Your task to perform on an android device: Clear the shopping cart on newegg.com. Add "amazon basics triple a" to the cart on newegg.com Image 0: 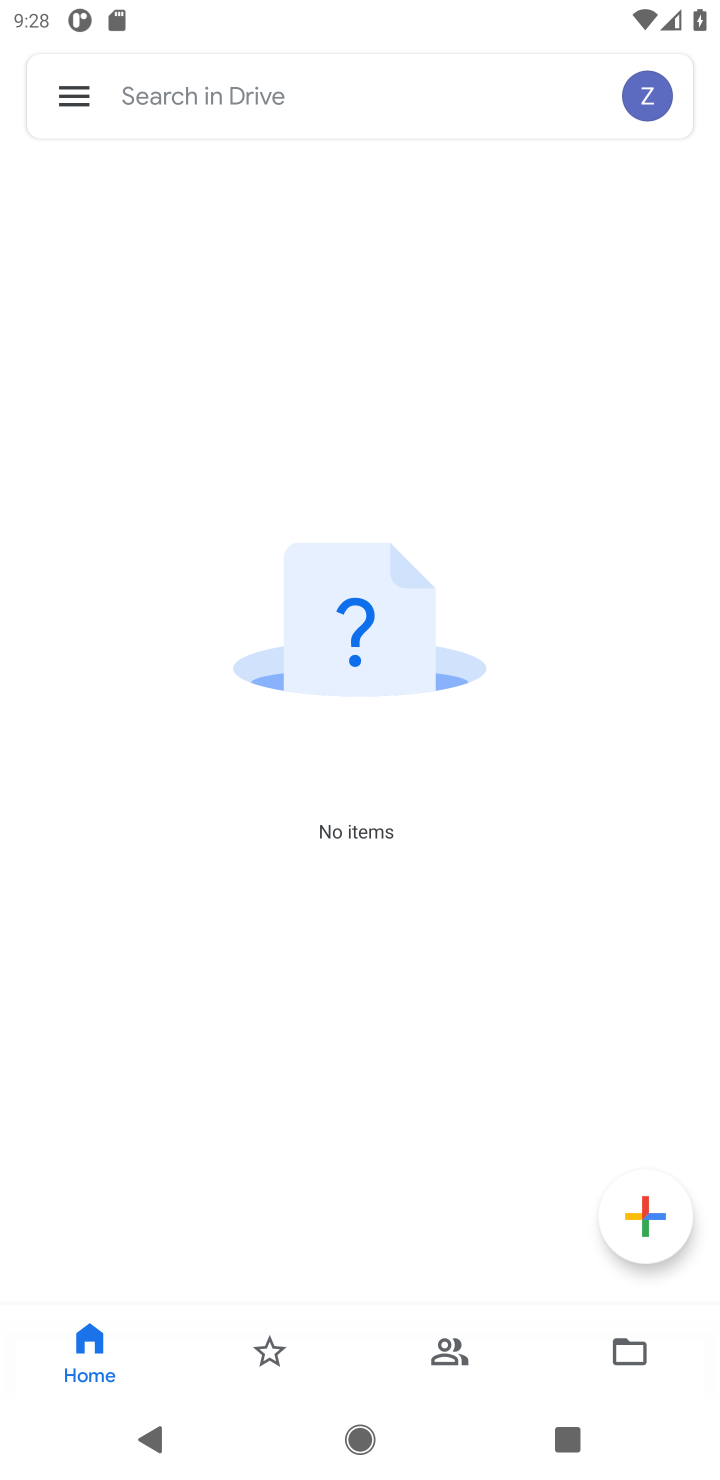
Step 0: press home button
Your task to perform on an android device: Clear the shopping cart on newegg.com. Add "amazon basics triple a" to the cart on newegg.com Image 1: 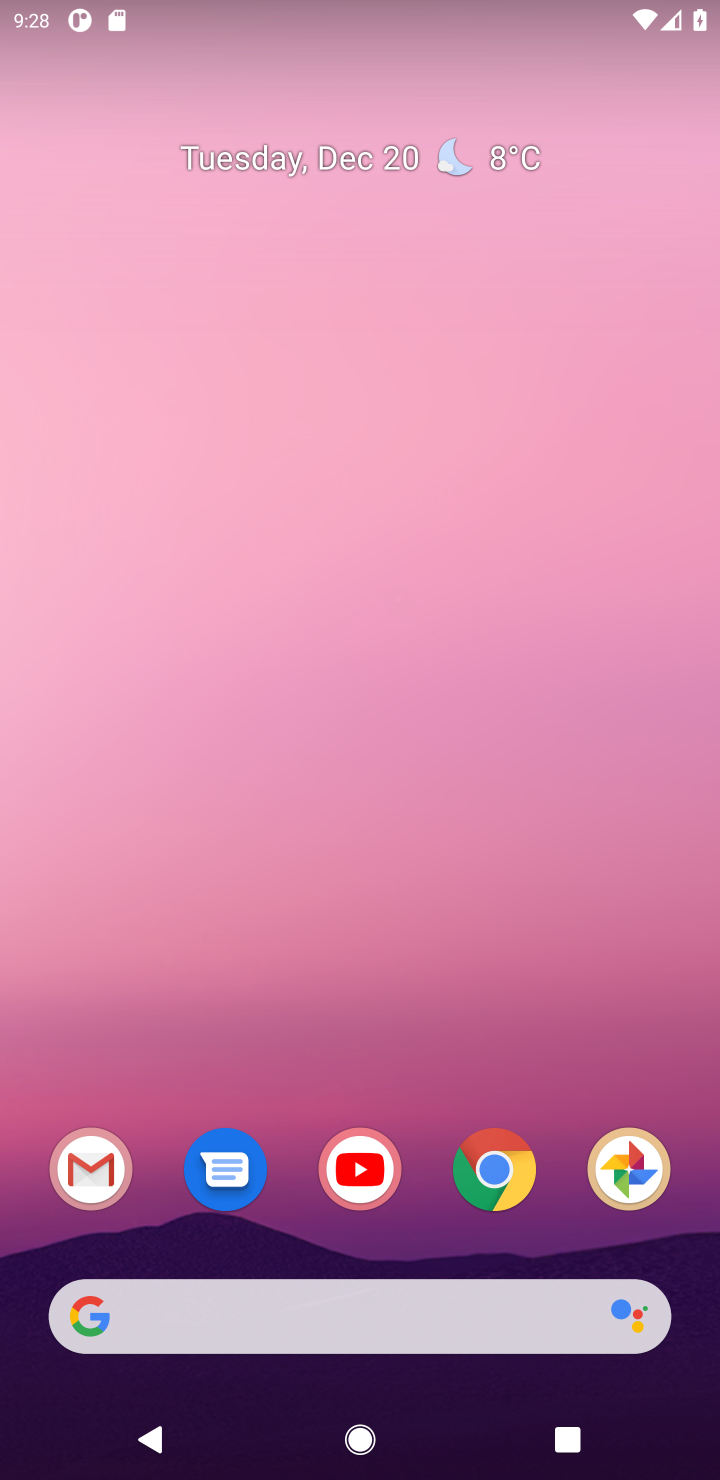
Step 1: click (500, 1184)
Your task to perform on an android device: Clear the shopping cart on newegg.com. Add "amazon basics triple a" to the cart on newegg.com Image 2: 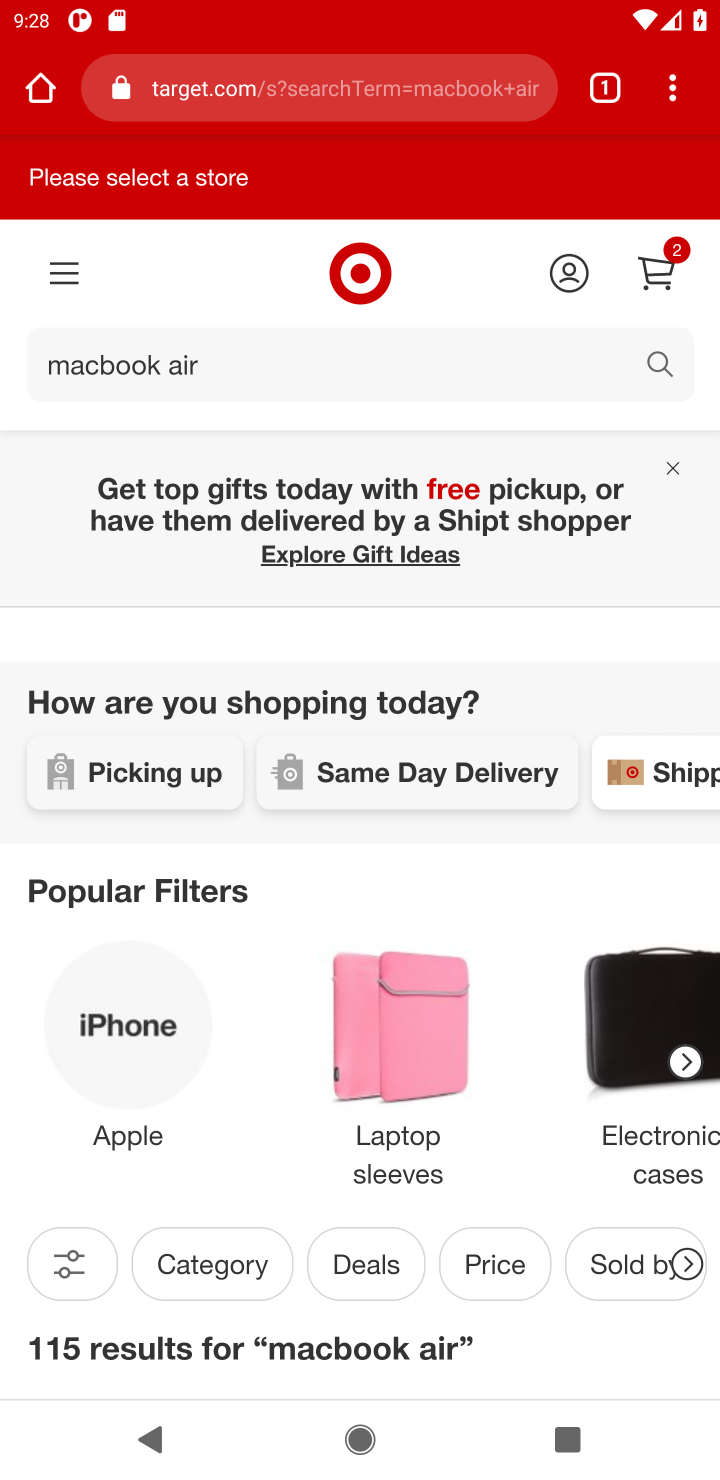
Step 2: click (343, 98)
Your task to perform on an android device: Clear the shopping cart on newegg.com. Add "amazon basics triple a" to the cart on newegg.com Image 3: 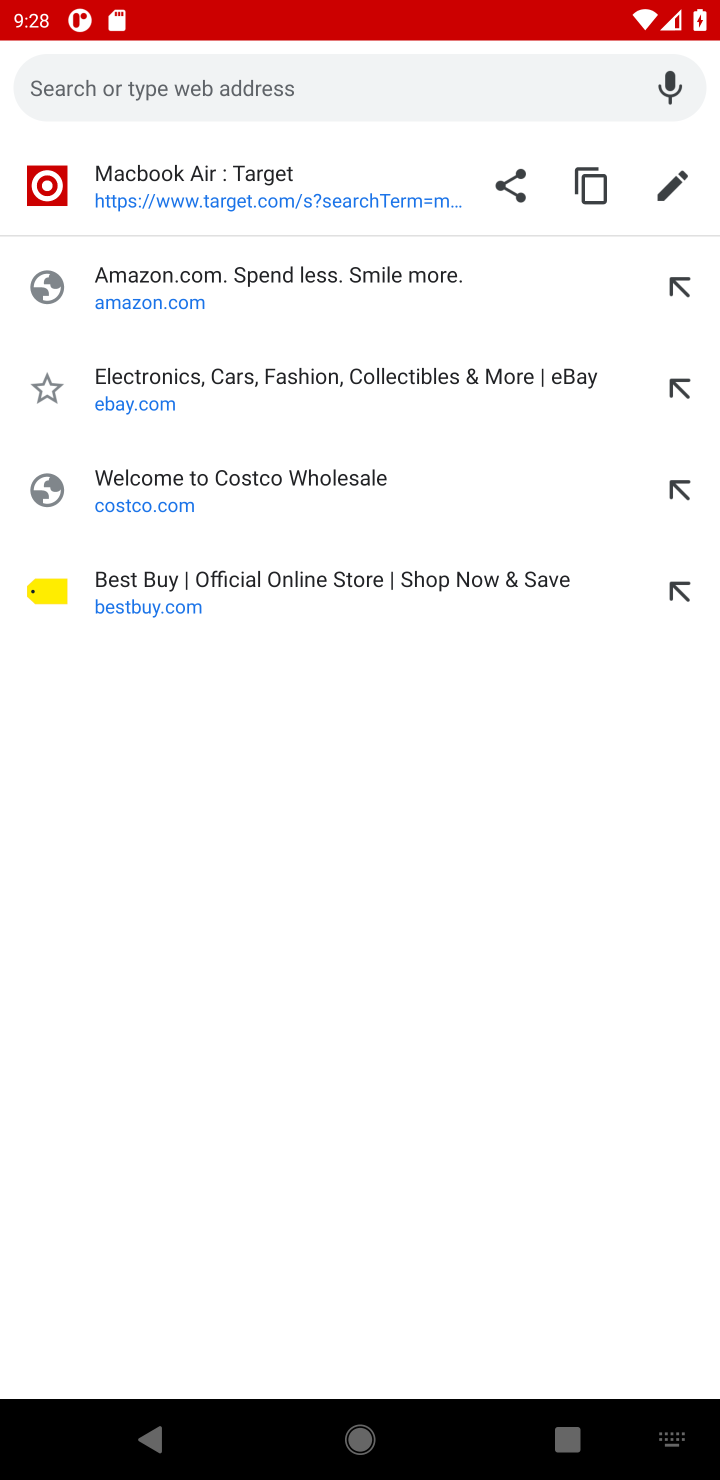
Step 3: type "newegg"
Your task to perform on an android device: Clear the shopping cart on newegg.com. Add "amazon basics triple a" to the cart on newegg.com Image 4: 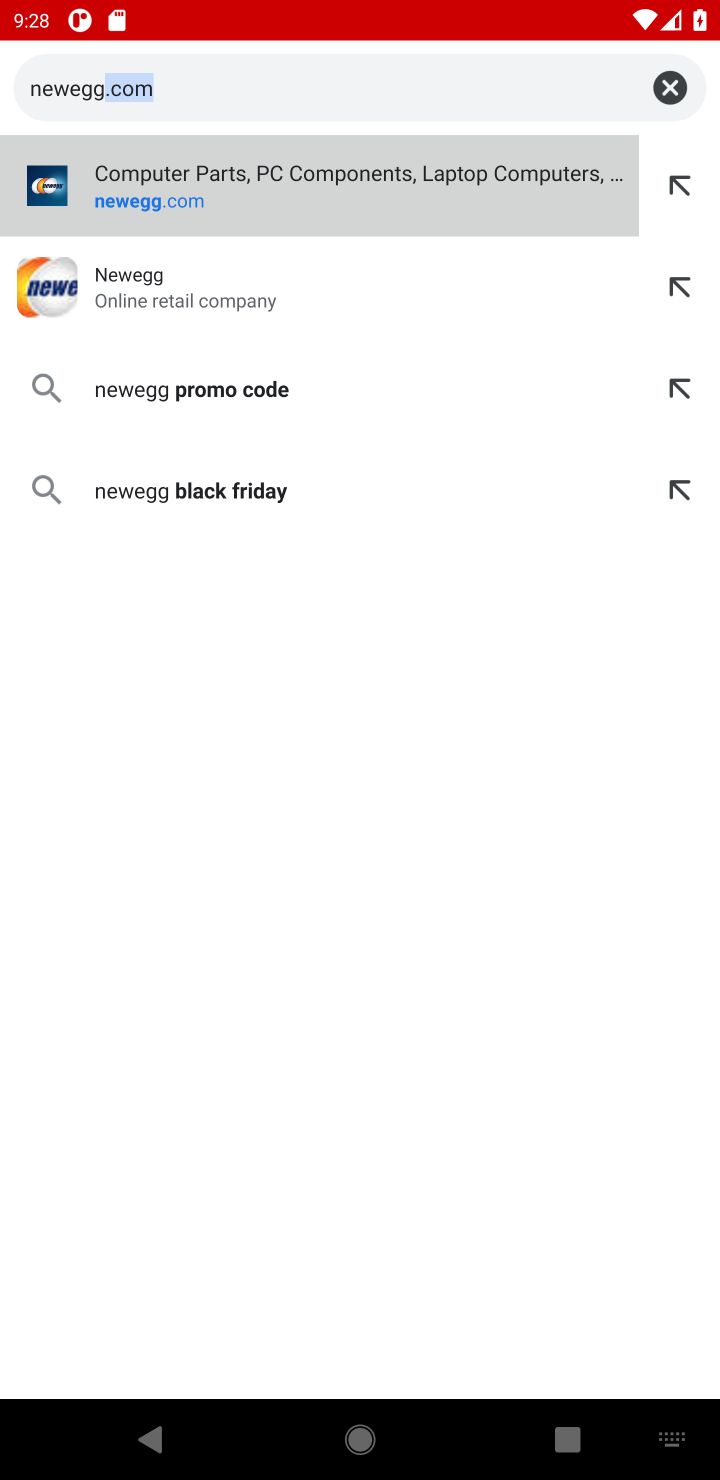
Step 4: click (280, 185)
Your task to perform on an android device: Clear the shopping cart on newegg.com. Add "amazon basics triple a" to the cart on newegg.com Image 5: 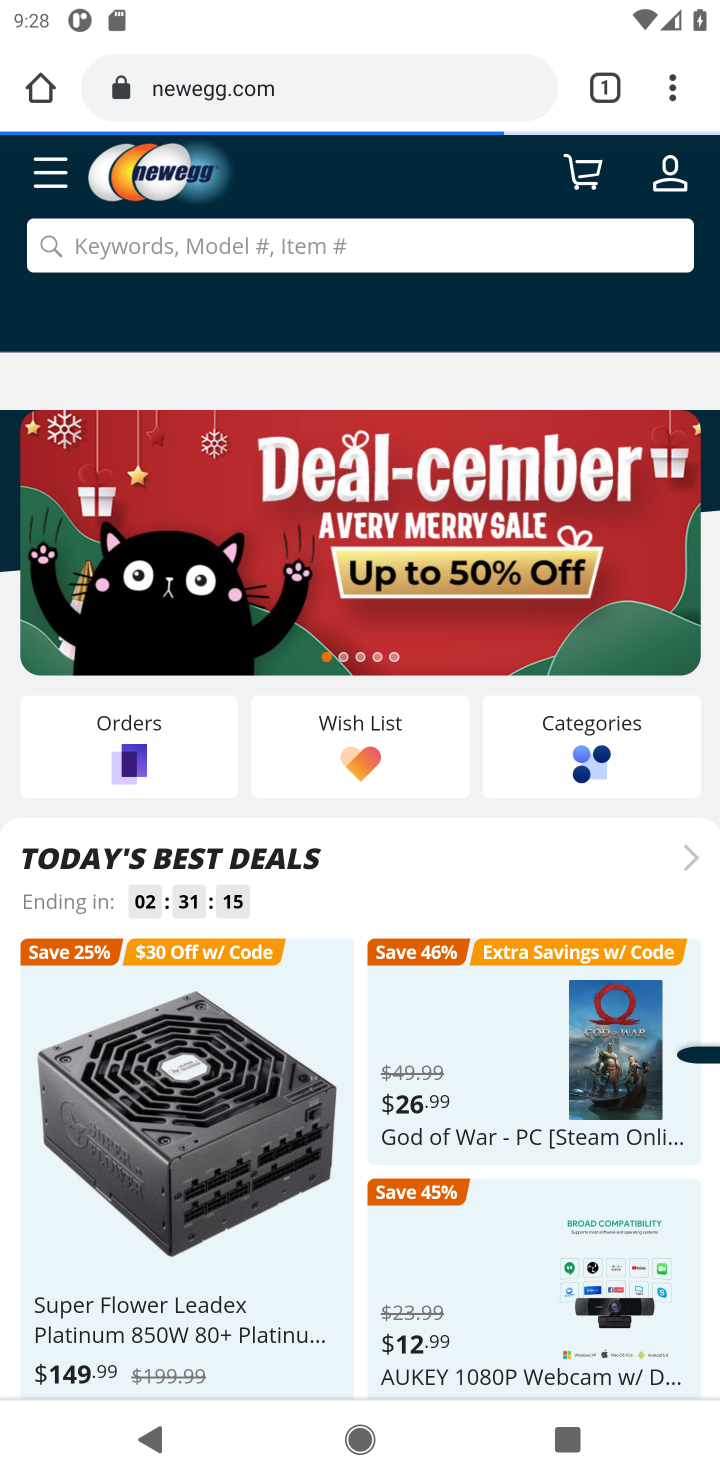
Step 5: click (223, 282)
Your task to perform on an android device: Clear the shopping cart on newegg.com. Add "amazon basics triple a" to the cart on newegg.com Image 6: 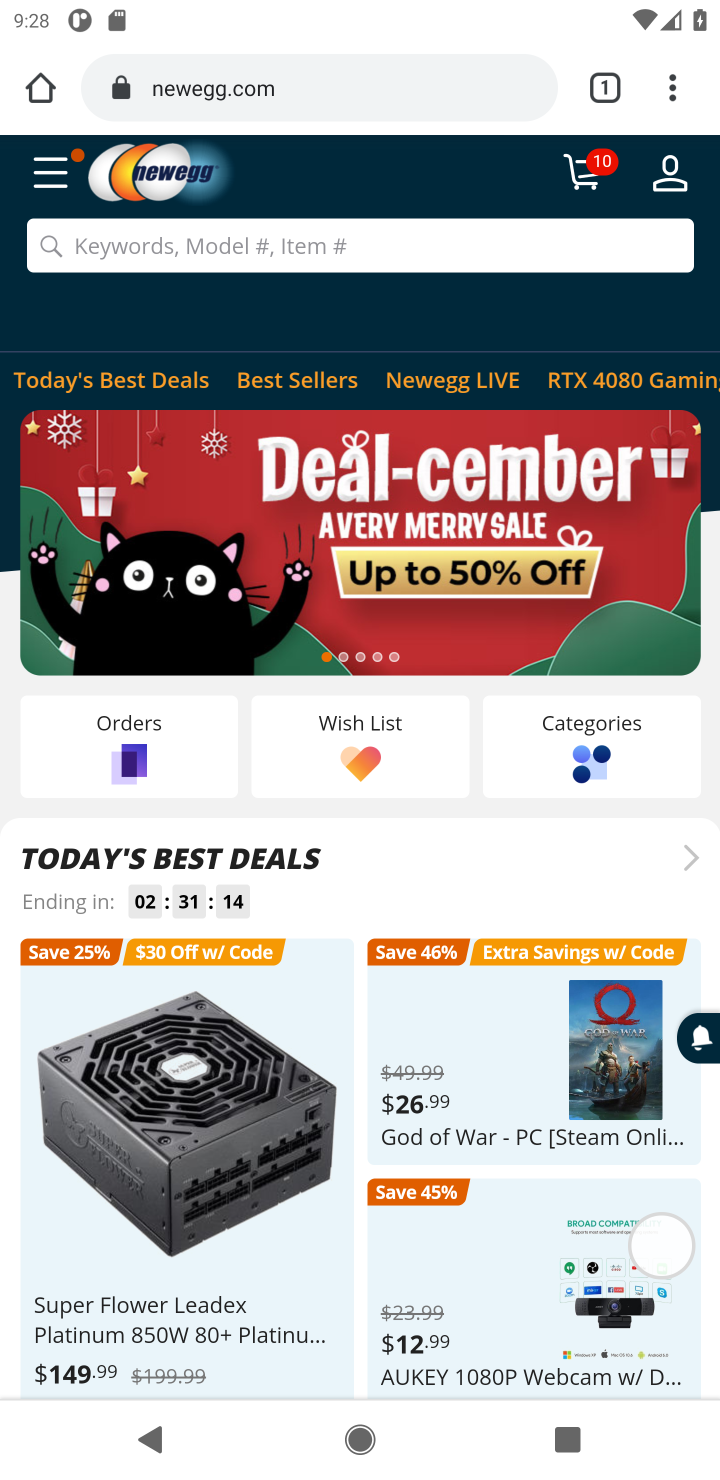
Step 6: click (213, 271)
Your task to perform on an android device: Clear the shopping cart on newegg.com. Add "amazon basics triple a" to the cart on newegg.com Image 7: 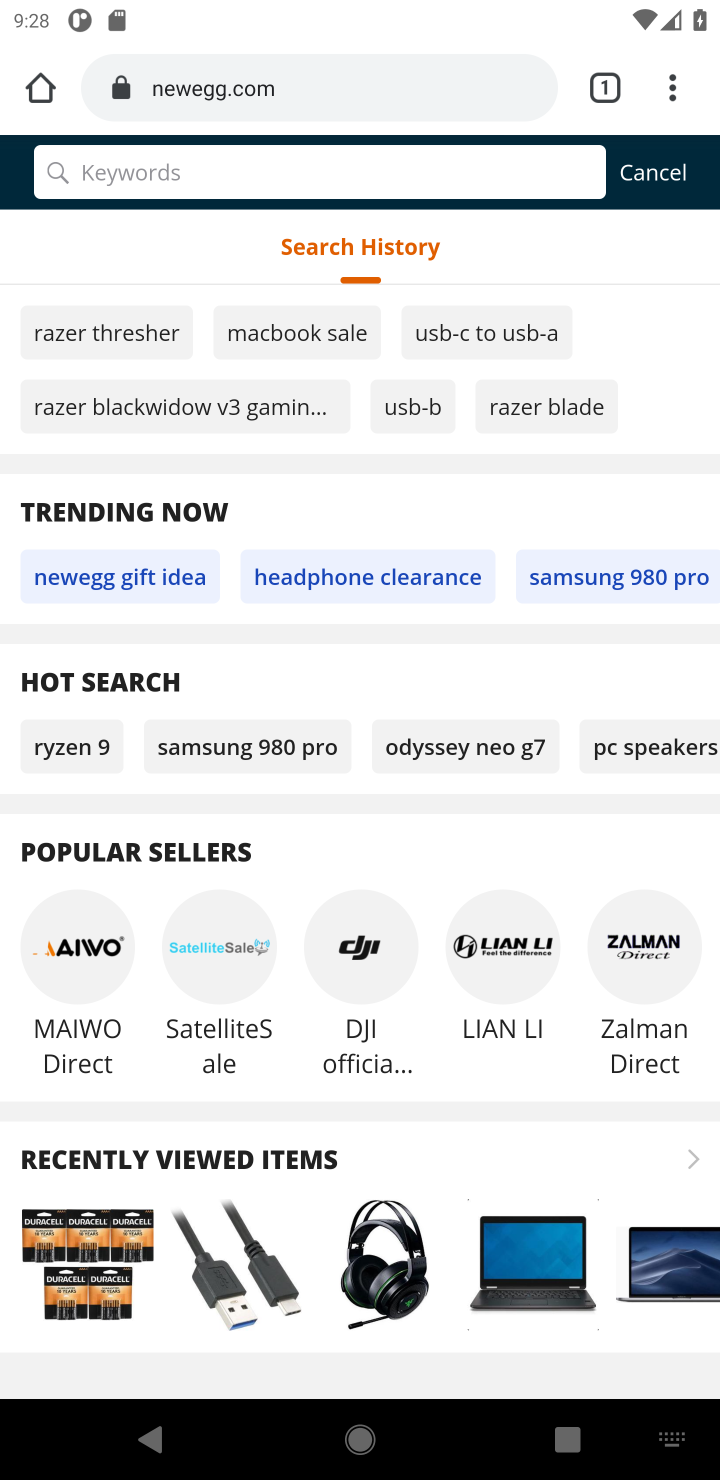
Step 7: click (190, 238)
Your task to perform on an android device: Clear the shopping cart on newegg.com. Add "amazon basics triple a" to the cart on newegg.com Image 8: 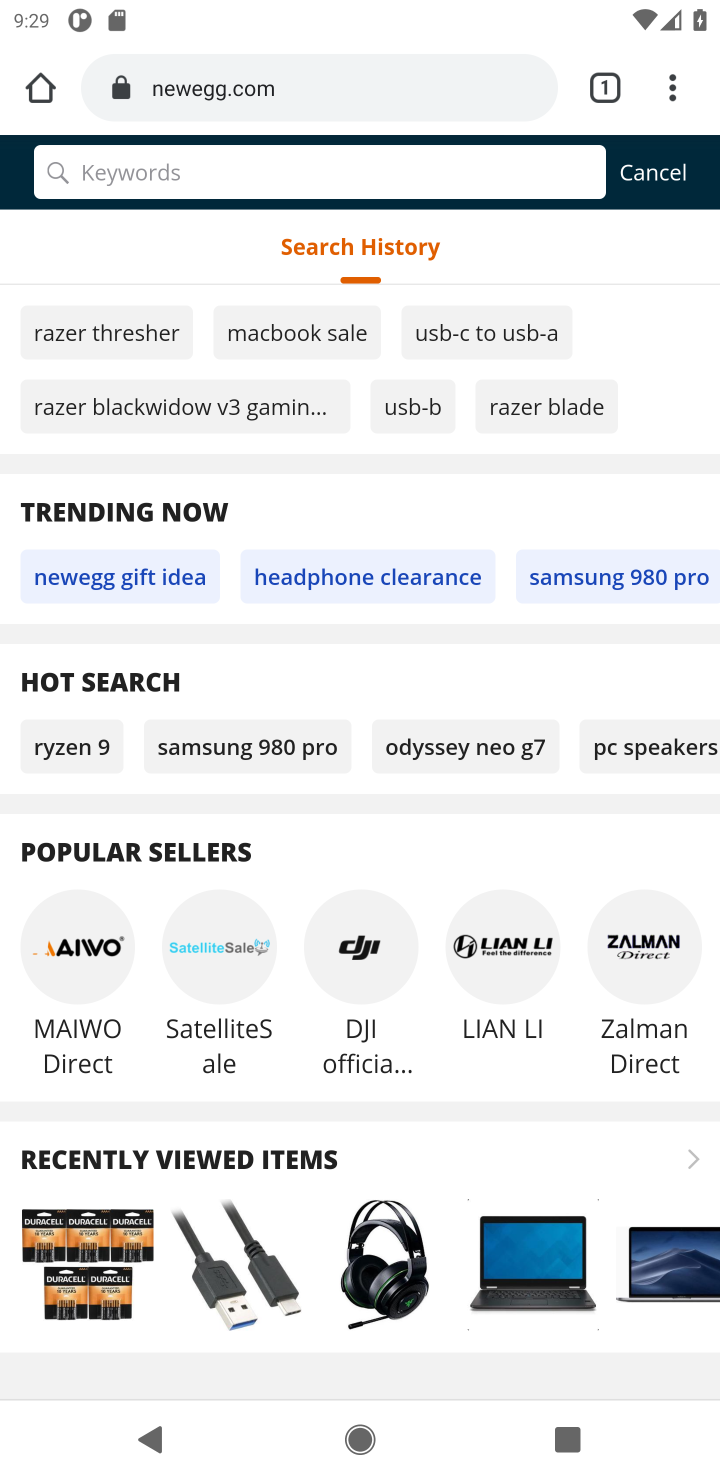
Step 8: type "amazon basics triple a"
Your task to perform on an android device: Clear the shopping cart on newegg.com. Add "amazon basics triple a" to the cart on newegg.com Image 9: 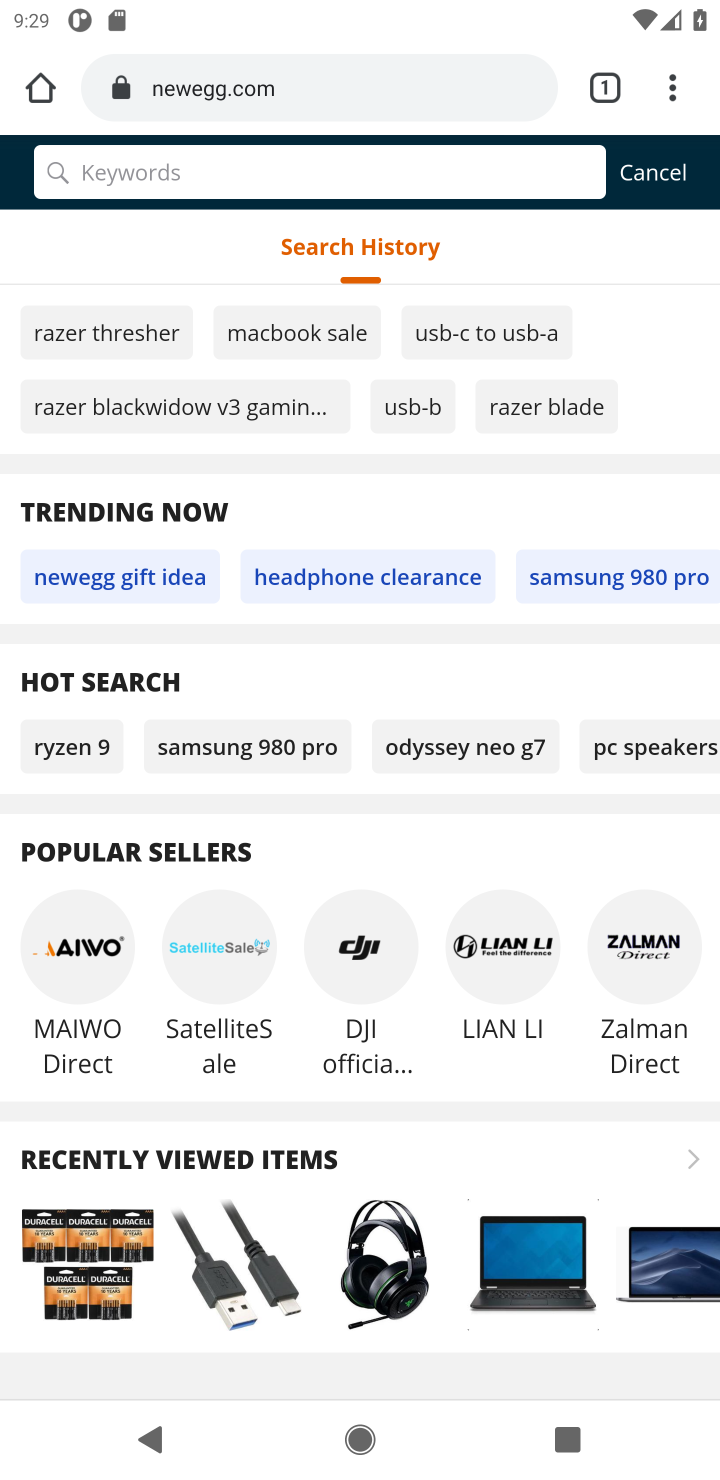
Step 9: task complete